Your task to perform on an android device: toggle notifications settings in the gmail app Image 0: 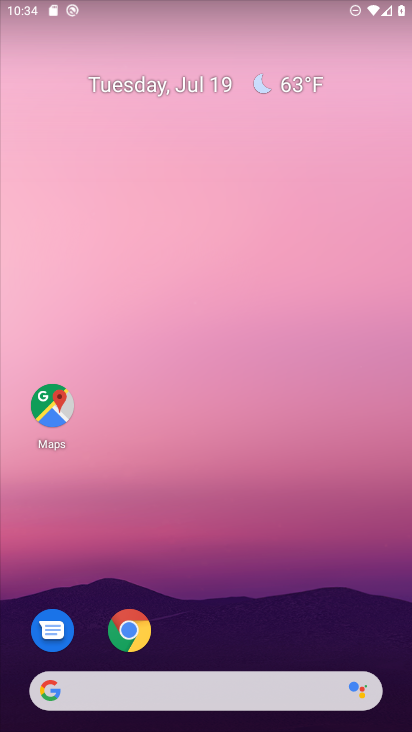
Step 0: drag from (180, 699) to (279, 119)
Your task to perform on an android device: toggle notifications settings in the gmail app Image 1: 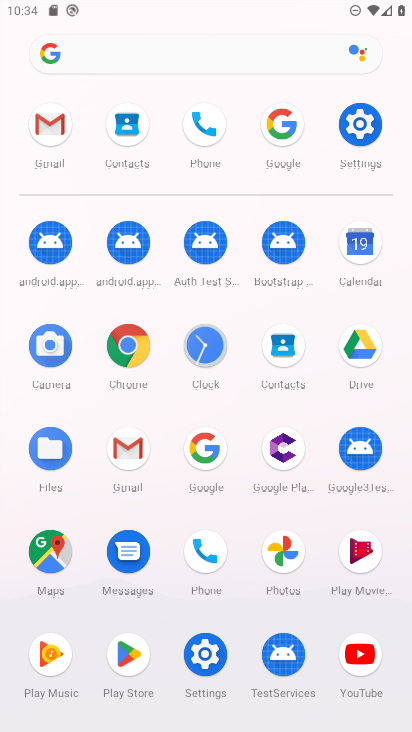
Step 1: click (49, 122)
Your task to perform on an android device: toggle notifications settings in the gmail app Image 2: 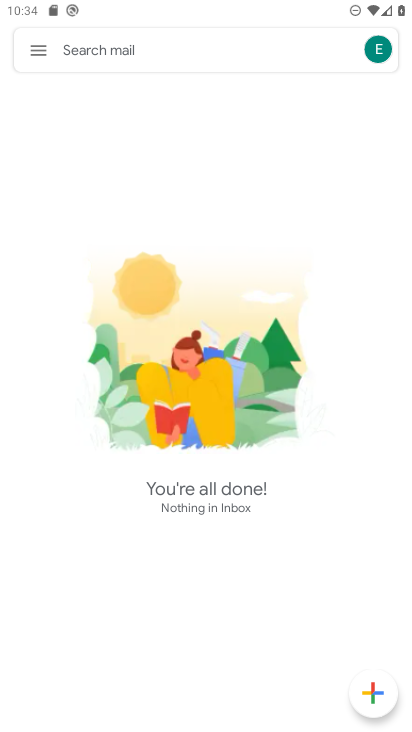
Step 2: click (39, 52)
Your task to perform on an android device: toggle notifications settings in the gmail app Image 3: 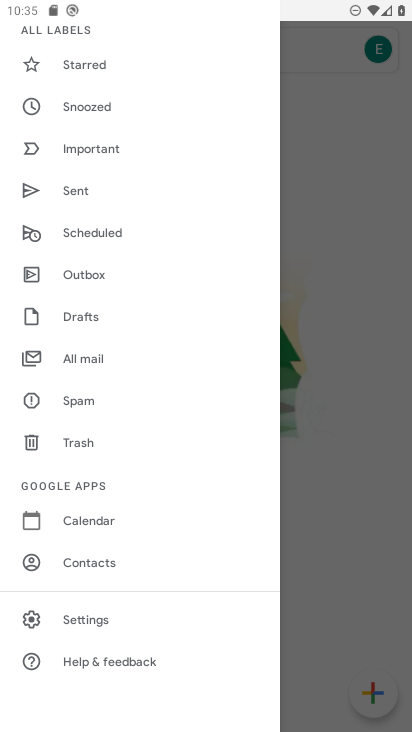
Step 3: click (91, 620)
Your task to perform on an android device: toggle notifications settings in the gmail app Image 4: 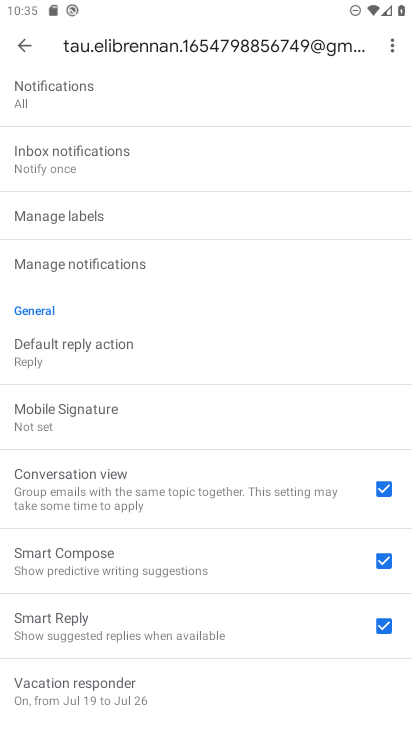
Step 4: click (93, 262)
Your task to perform on an android device: toggle notifications settings in the gmail app Image 5: 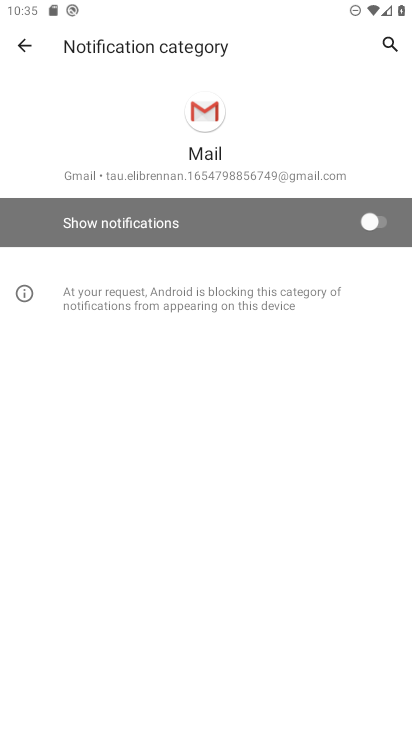
Step 5: click (370, 216)
Your task to perform on an android device: toggle notifications settings in the gmail app Image 6: 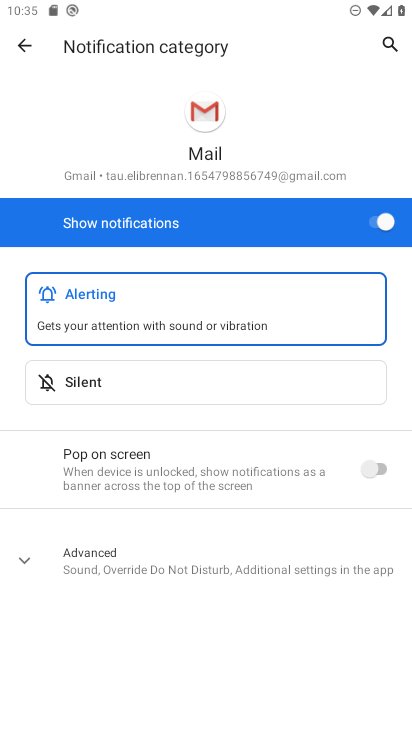
Step 6: task complete